Your task to perform on an android device: see sites visited before in the chrome app Image 0: 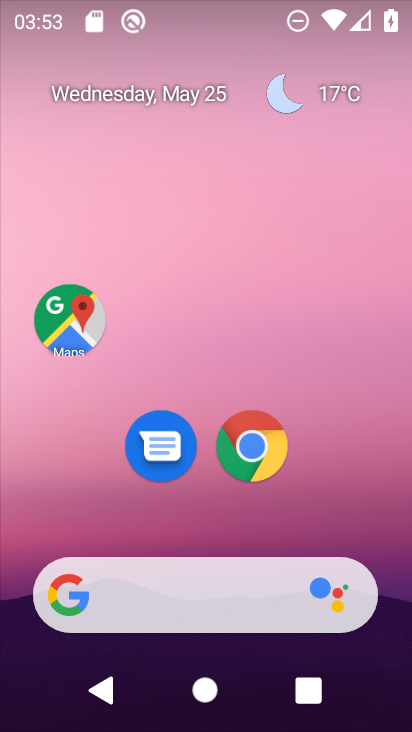
Step 0: click (244, 458)
Your task to perform on an android device: see sites visited before in the chrome app Image 1: 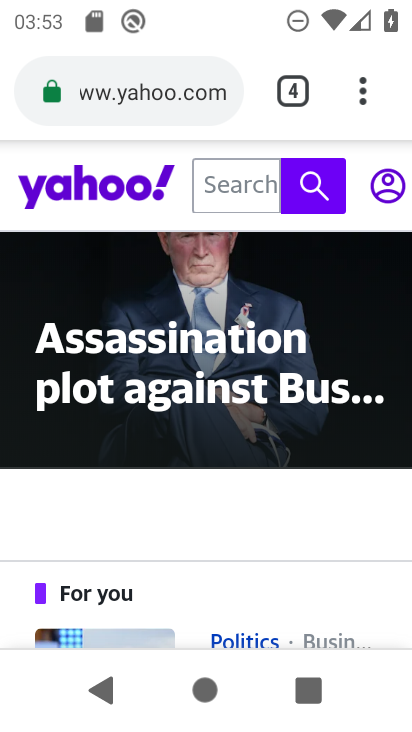
Step 1: click (364, 87)
Your task to perform on an android device: see sites visited before in the chrome app Image 2: 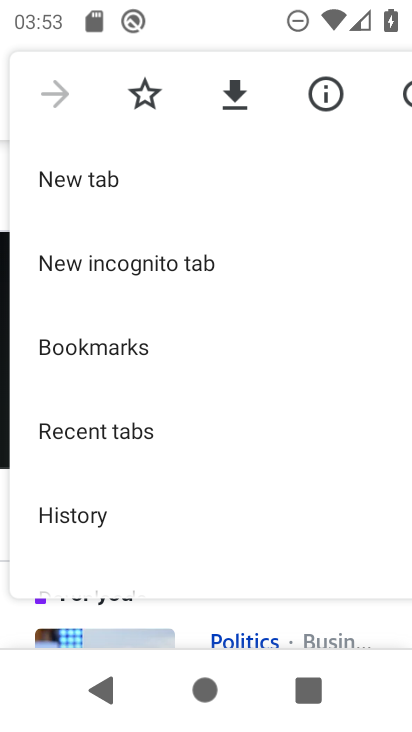
Step 2: click (97, 526)
Your task to perform on an android device: see sites visited before in the chrome app Image 3: 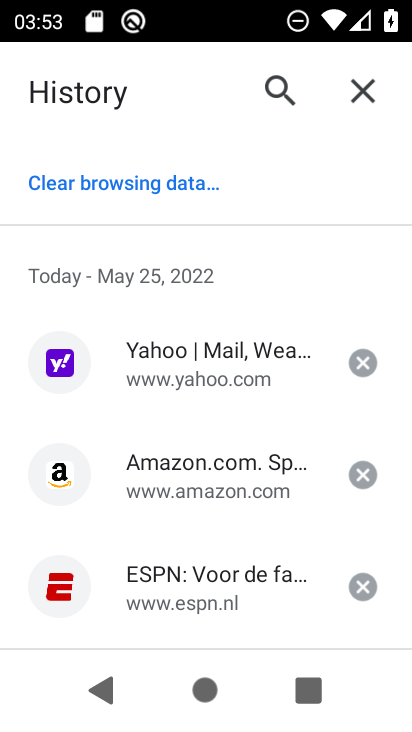
Step 3: task complete